Your task to perform on an android device: Open battery settings Image 0: 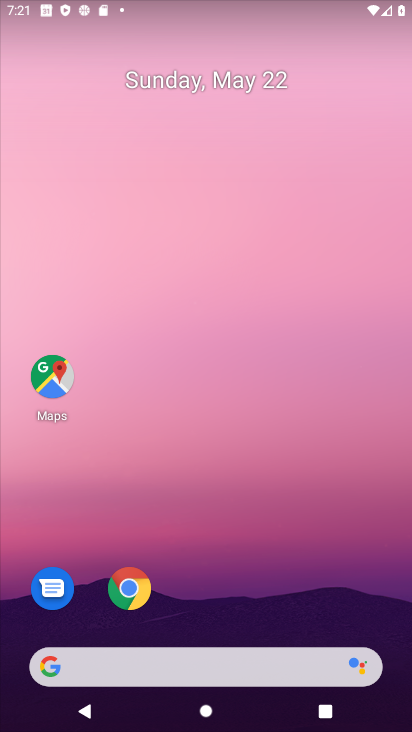
Step 0: drag from (251, 552) to (189, 145)
Your task to perform on an android device: Open battery settings Image 1: 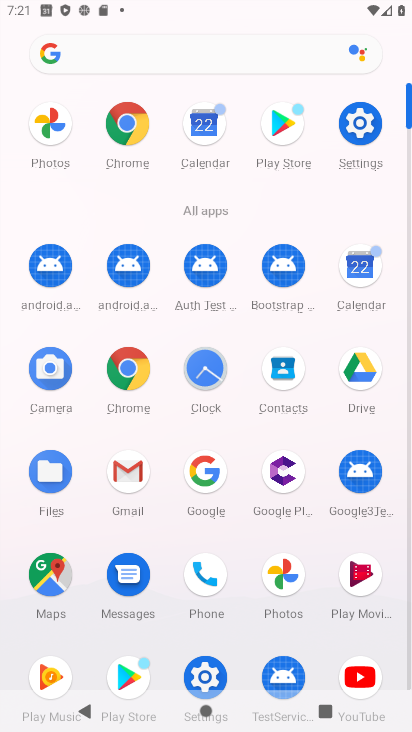
Step 1: click (367, 123)
Your task to perform on an android device: Open battery settings Image 2: 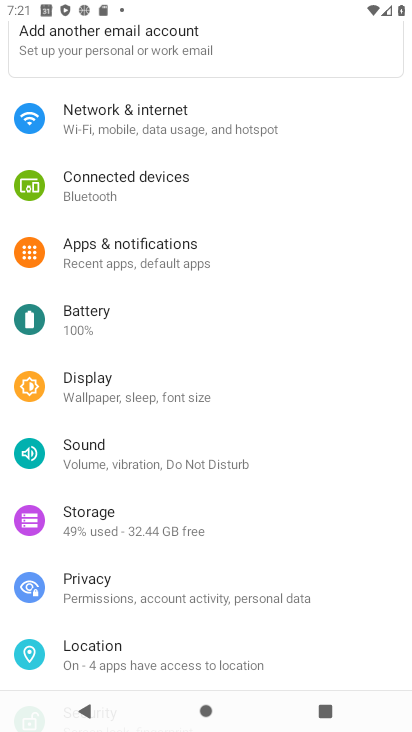
Step 2: click (76, 311)
Your task to perform on an android device: Open battery settings Image 3: 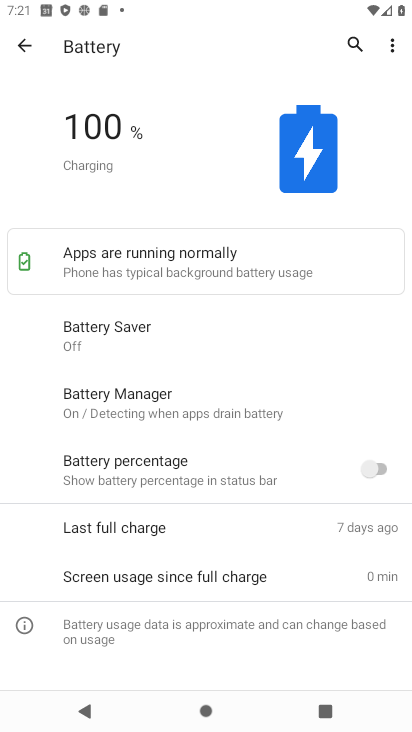
Step 3: task complete